Your task to perform on an android device: Open maps Image 0: 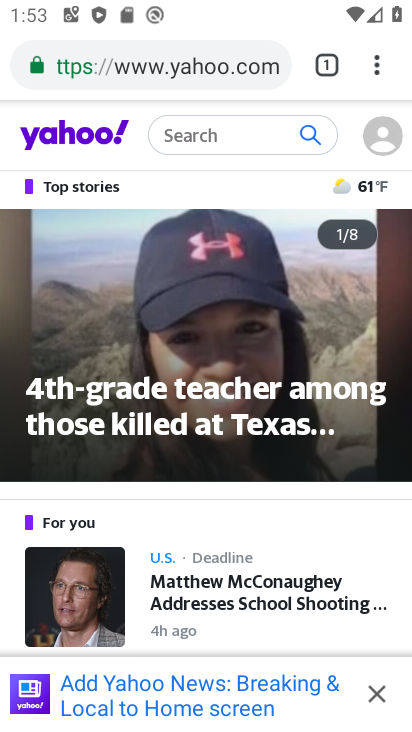
Step 0: press home button
Your task to perform on an android device: Open maps Image 1: 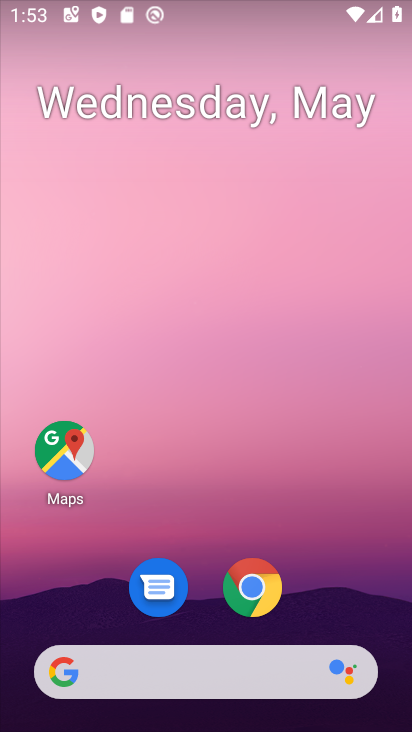
Step 1: click (77, 450)
Your task to perform on an android device: Open maps Image 2: 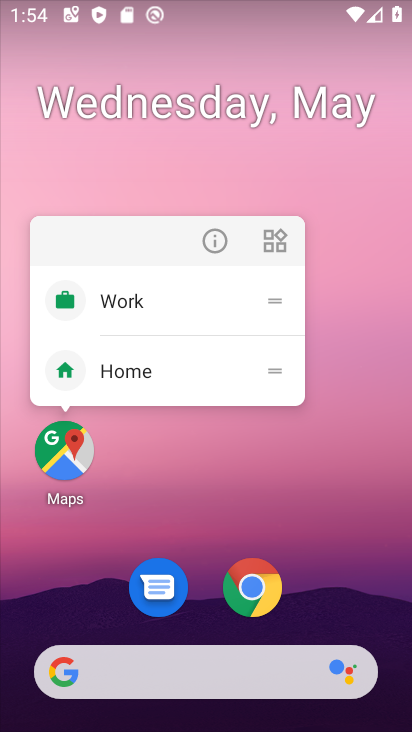
Step 2: click (65, 461)
Your task to perform on an android device: Open maps Image 3: 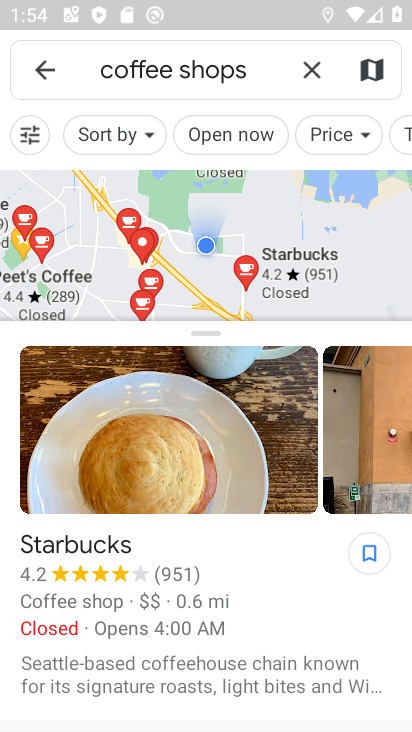
Step 3: task complete